Your task to perform on an android device: Open the map Image 0: 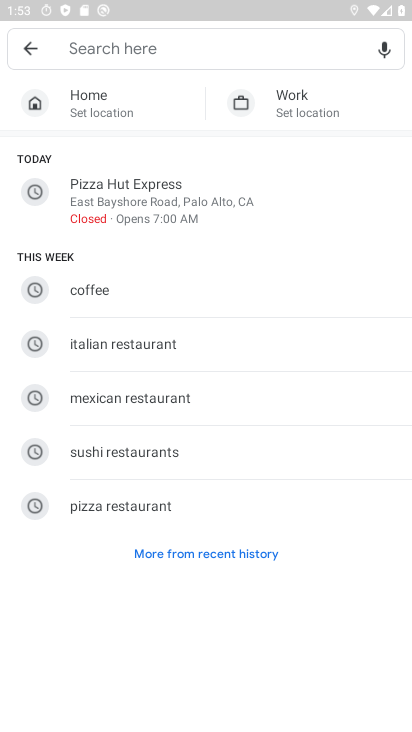
Step 0: press home button
Your task to perform on an android device: Open the map Image 1: 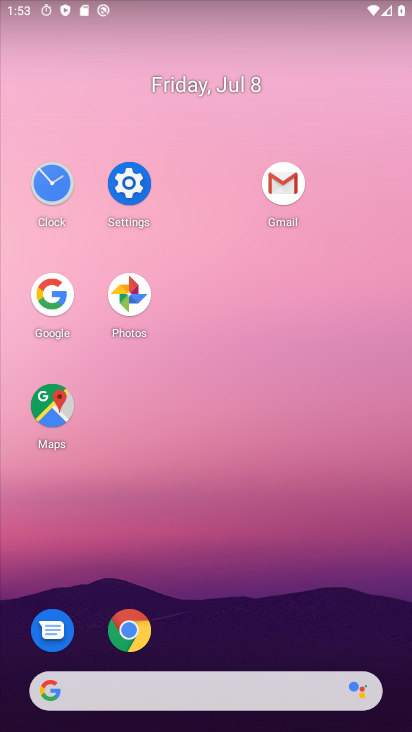
Step 1: click (62, 404)
Your task to perform on an android device: Open the map Image 2: 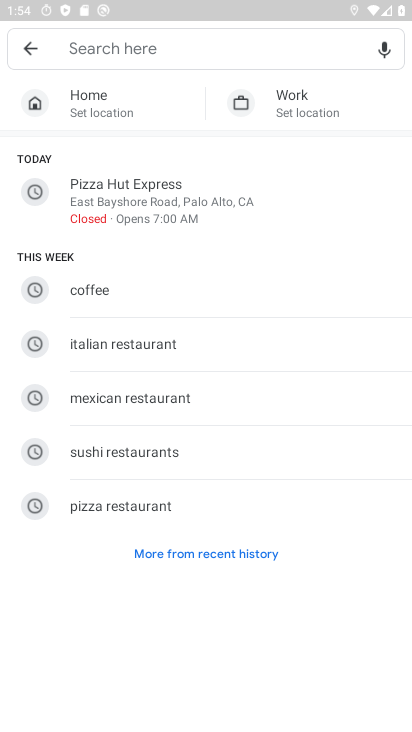
Step 2: task complete